Your task to perform on an android device: open app "DoorDash - Food Delivery" (install if not already installed), go to login, and select forgot password Image 0: 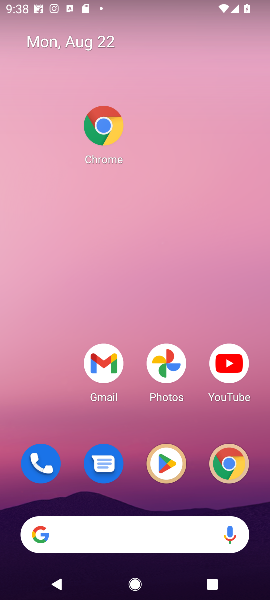
Step 0: click (158, 466)
Your task to perform on an android device: open app "DoorDash - Food Delivery" (install if not already installed), go to login, and select forgot password Image 1: 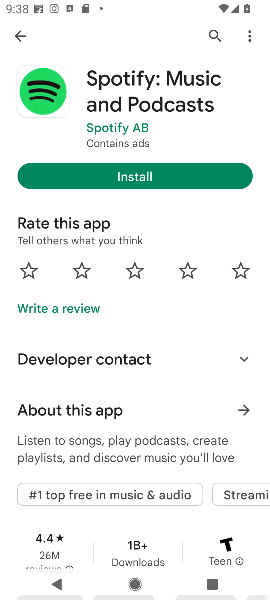
Step 1: click (19, 35)
Your task to perform on an android device: open app "DoorDash - Food Delivery" (install if not already installed), go to login, and select forgot password Image 2: 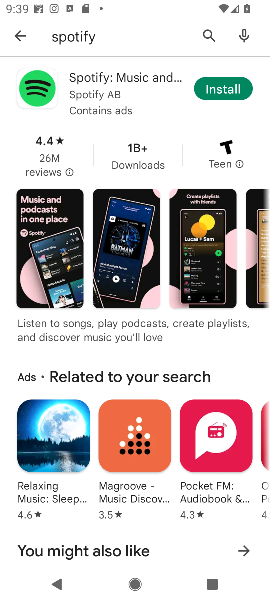
Step 2: click (19, 35)
Your task to perform on an android device: open app "DoorDash - Food Delivery" (install if not already installed), go to login, and select forgot password Image 3: 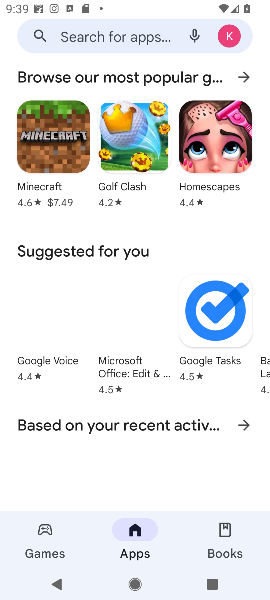
Step 3: click (64, 35)
Your task to perform on an android device: open app "DoorDash - Food Delivery" (install if not already installed), go to login, and select forgot password Image 4: 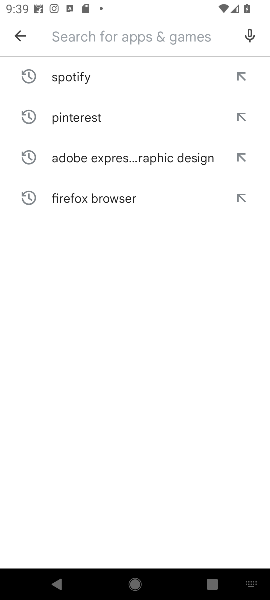
Step 4: type "DoorDash - Food Delivery"
Your task to perform on an android device: open app "DoorDash - Food Delivery" (install if not already installed), go to login, and select forgot password Image 5: 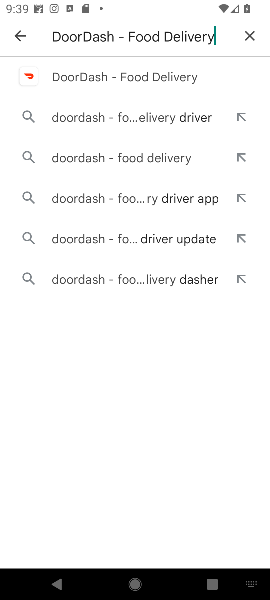
Step 5: click (139, 74)
Your task to perform on an android device: open app "DoorDash - Food Delivery" (install if not already installed), go to login, and select forgot password Image 6: 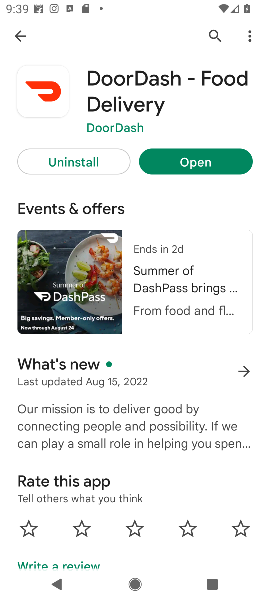
Step 6: click (179, 167)
Your task to perform on an android device: open app "DoorDash - Food Delivery" (install if not already installed), go to login, and select forgot password Image 7: 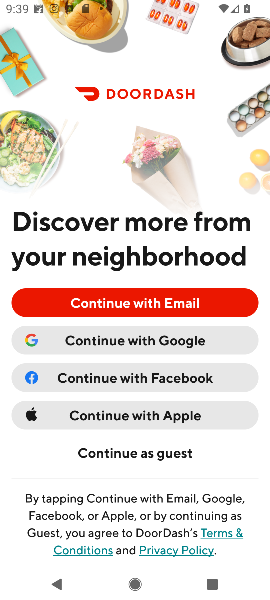
Step 7: task complete